Your task to perform on an android device: Check the weather Image 0: 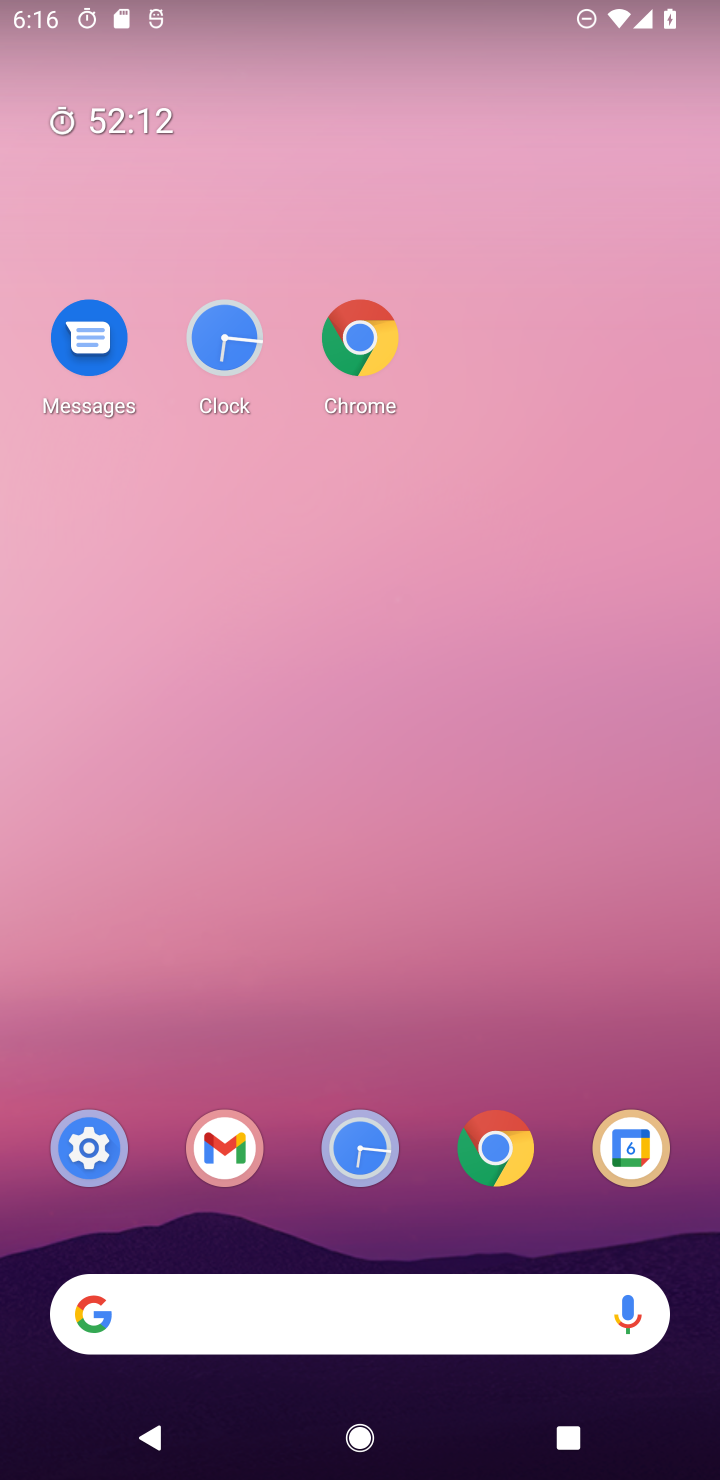
Step 0: drag from (357, 1225) to (106, 86)
Your task to perform on an android device: Check the weather Image 1: 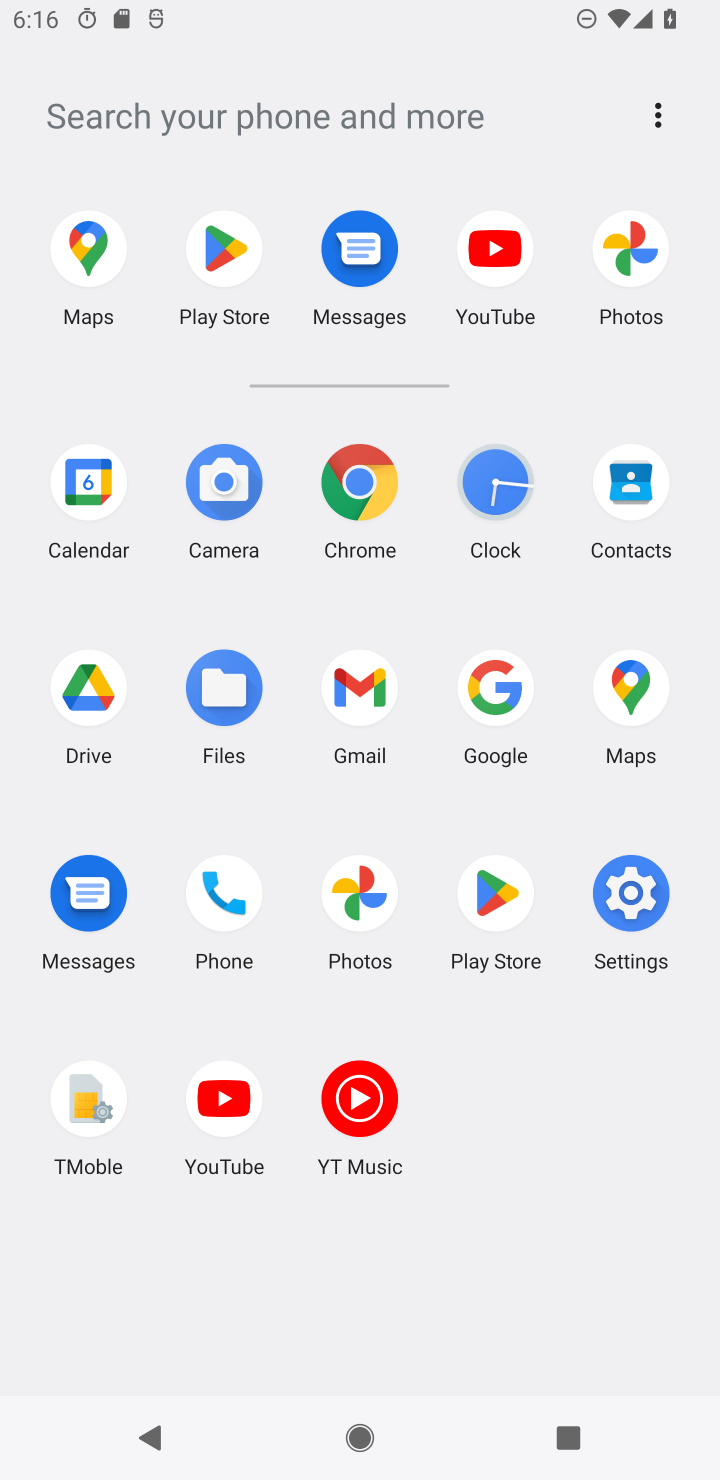
Step 1: click (215, 119)
Your task to perform on an android device: Check the weather Image 2: 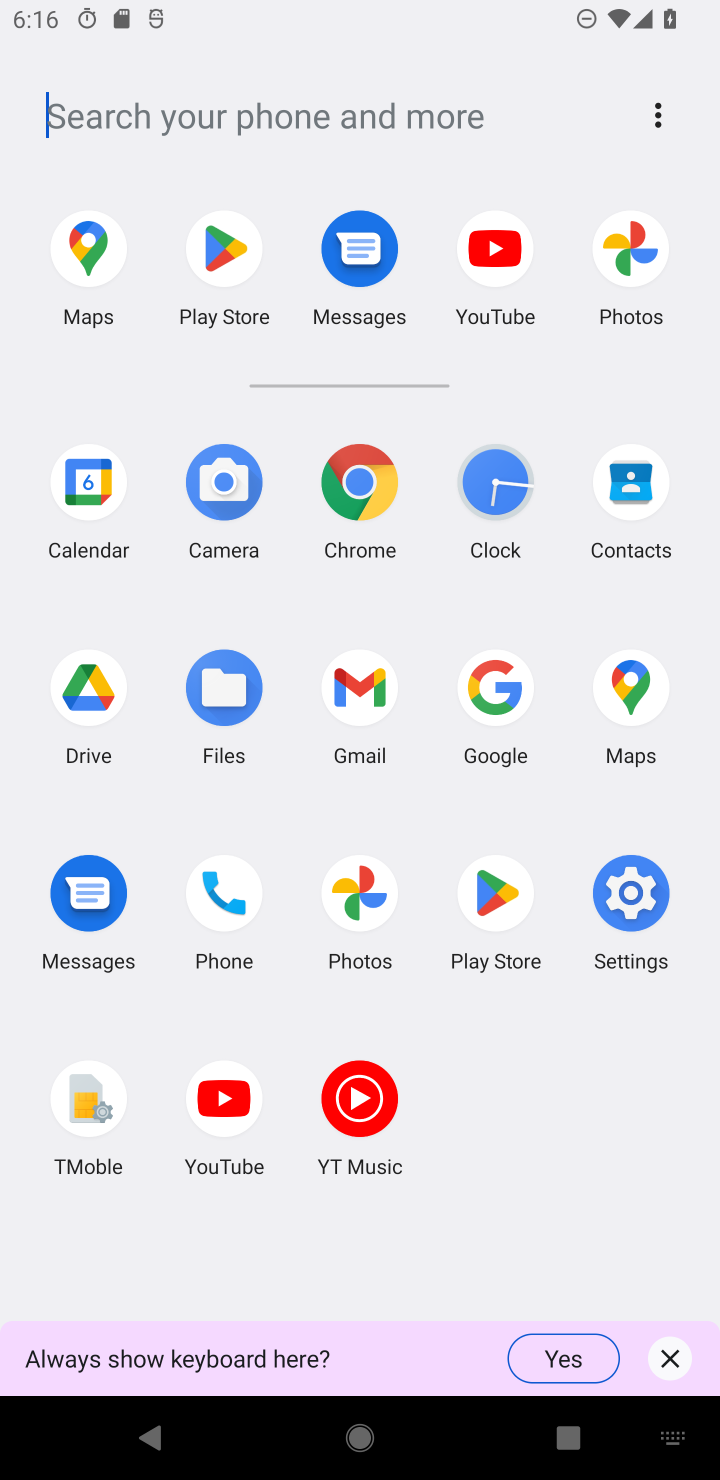
Step 2: type "weather"
Your task to perform on an android device: Check the weather Image 3: 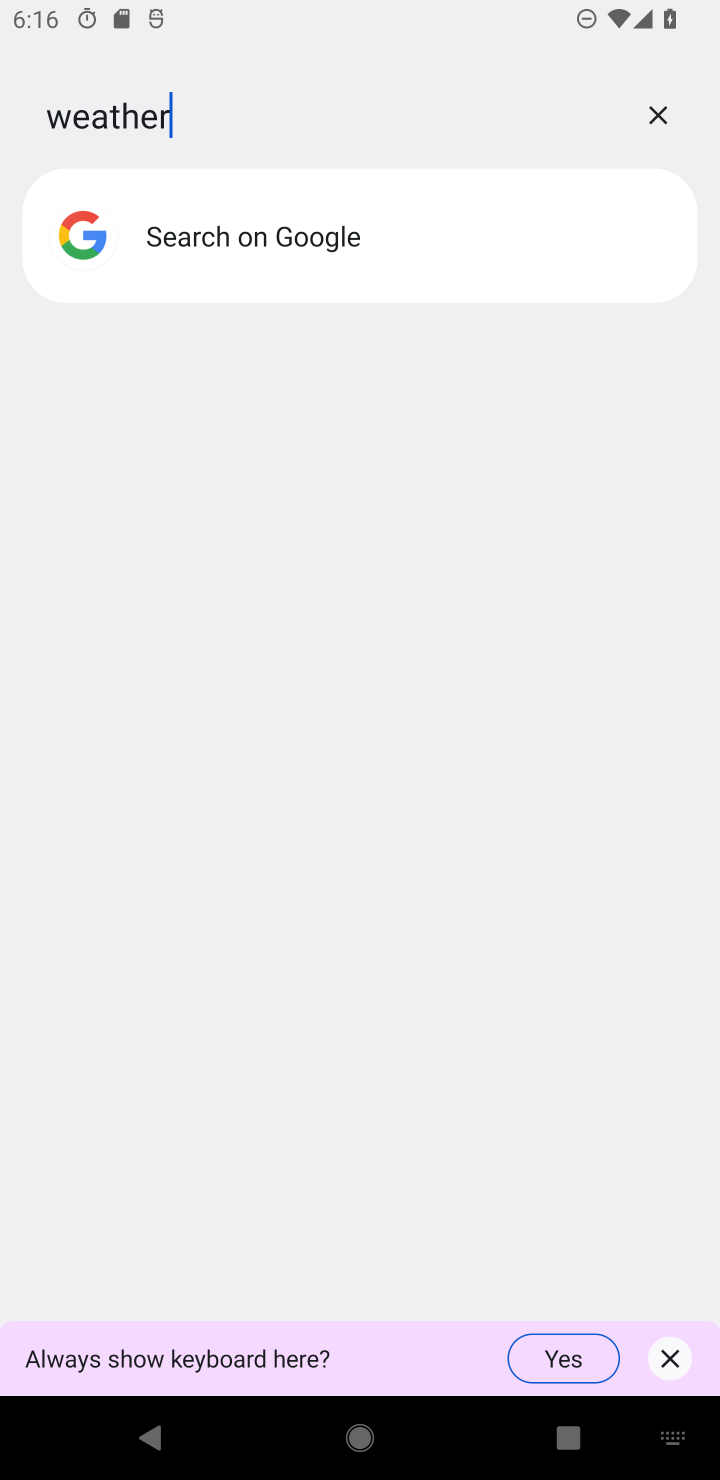
Step 3: click (193, 237)
Your task to perform on an android device: Check the weather Image 4: 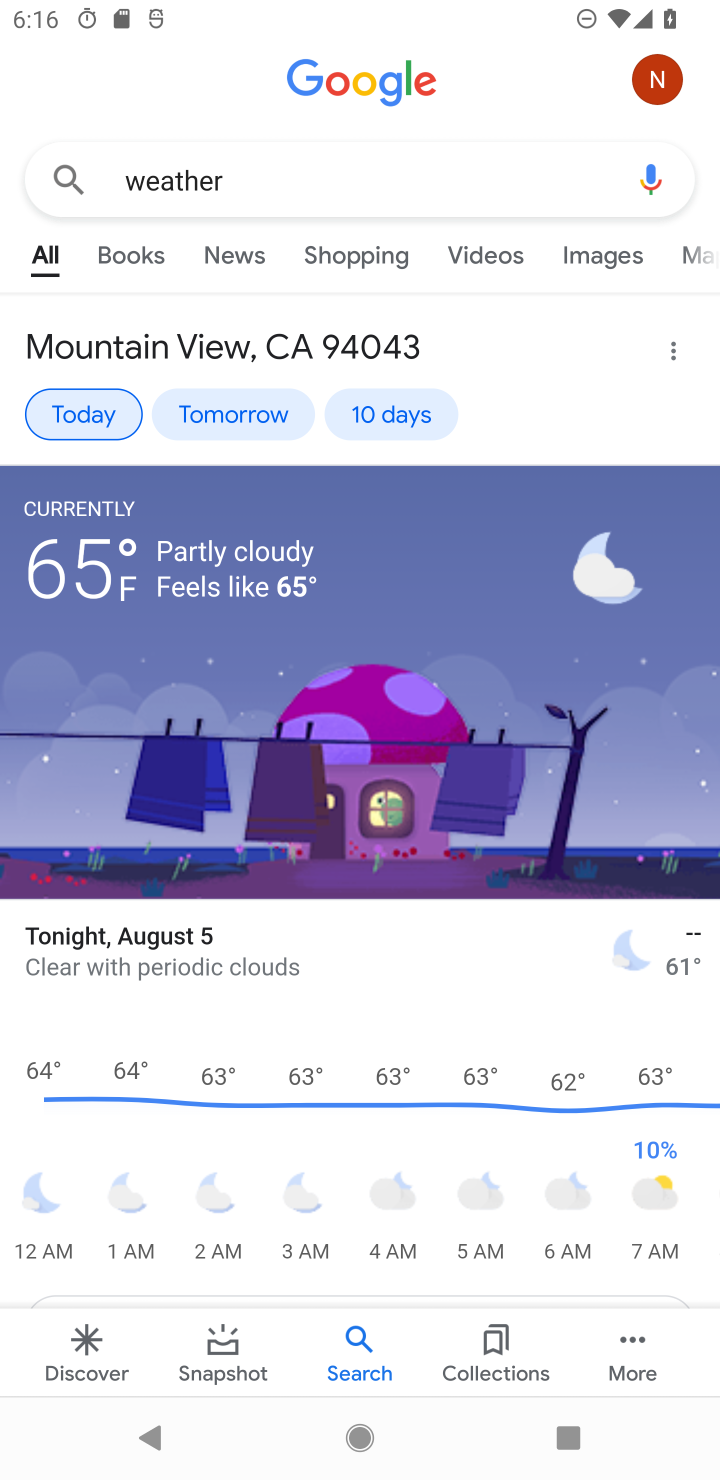
Step 4: task complete